Your task to perform on an android device: turn on priority inbox in the gmail app Image 0: 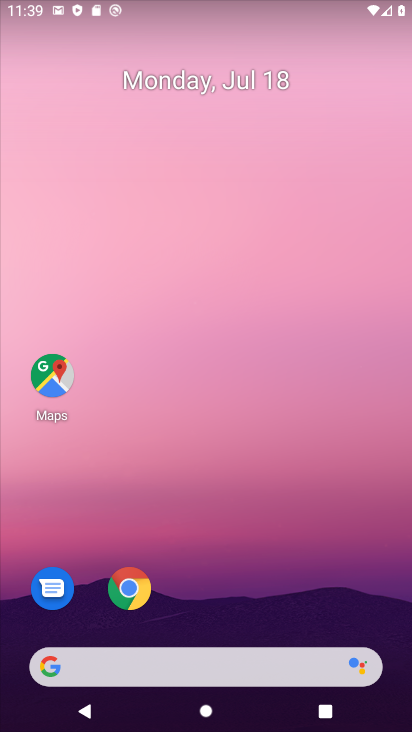
Step 0: drag from (365, 624) to (263, 98)
Your task to perform on an android device: turn on priority inbox in the gmail app Image 1: 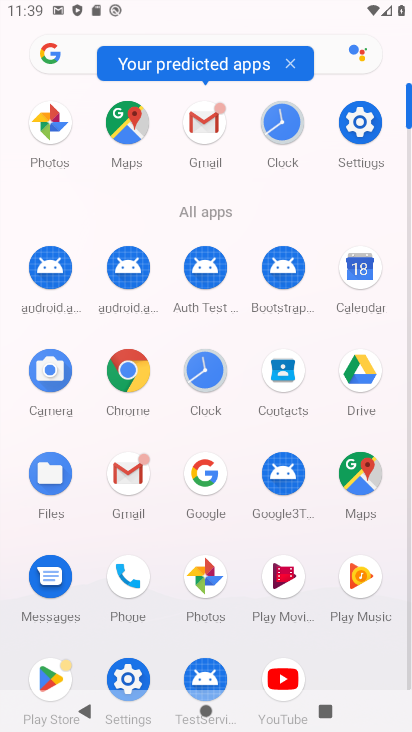
Step 1: click (139, 483)
Your task to perform on an android device: turn on priority inbox in the gmail app Image 2: 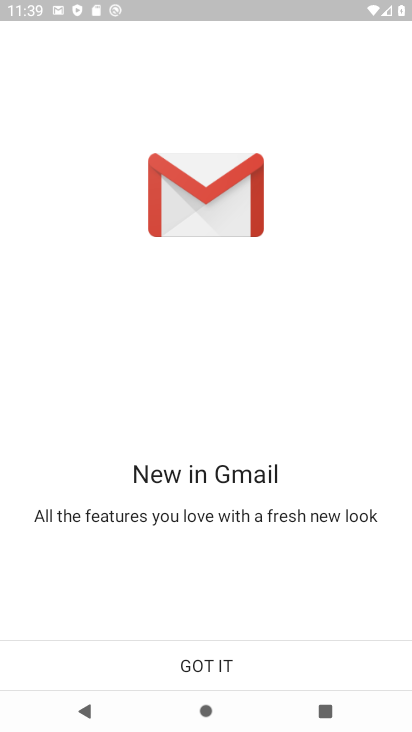
Step 2: click (234, 675)
Your task to perform on an android device: turn on priority inbox in the gmail app Image 3: 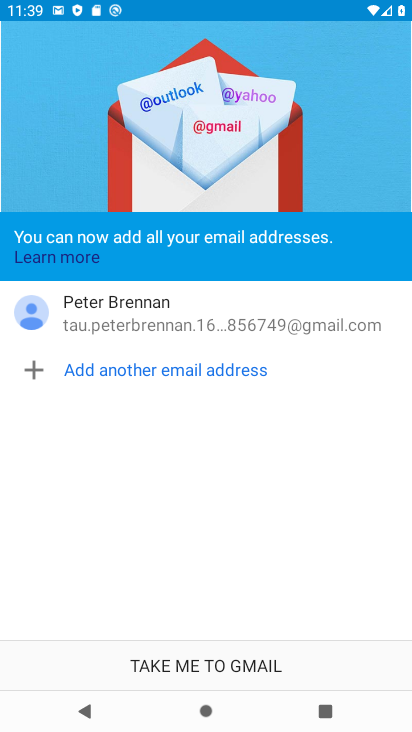
Step 3: click (234, 675)
Your task to perform on an android device: turn on priority inbox in the gmail app Image 4: 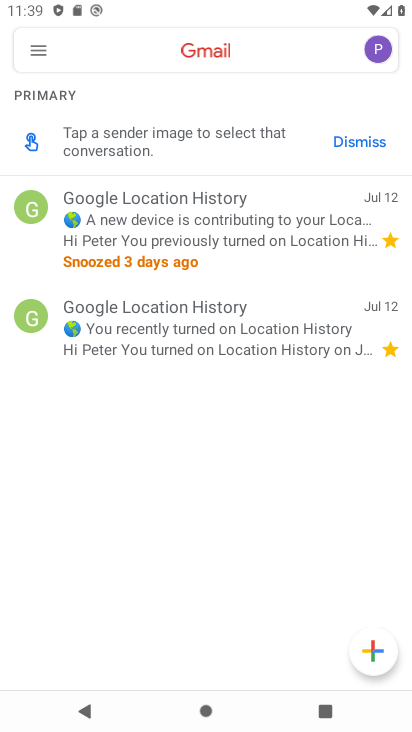
Step 4: click (39, 55)
Your task to perform on an android device: turn on priority inbox in the gmail app Image 5: 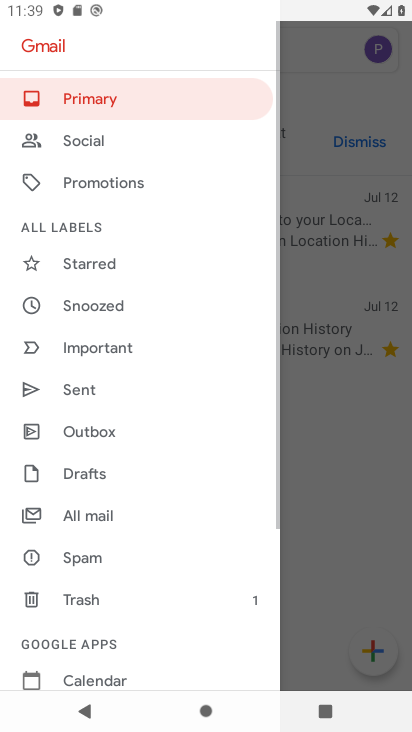
Step 5: drag from (67, 662) to (114, 194)
Your task to perform on an android device: turn on priority inbox in the gmail app Image 6: 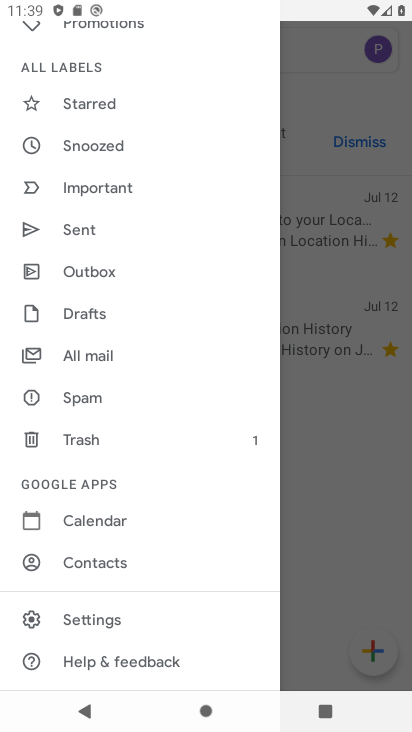
Step 6: click (91, 621)
Your task to perform on an android device: turn on priority inbox in the gmail app Image 7: 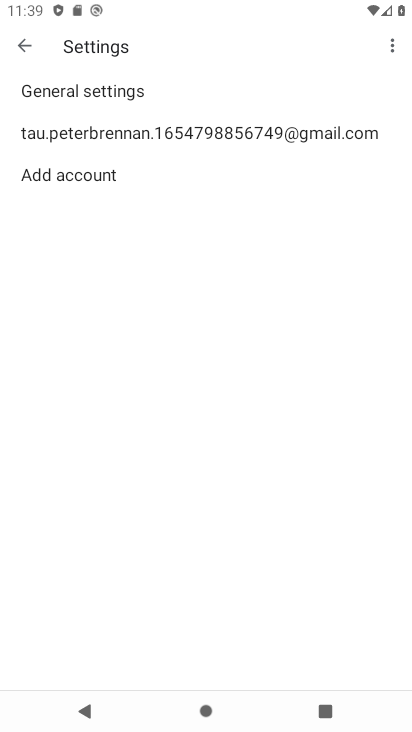
Step 7: click (266, 136)
Your task to perform on an android device: turn on priority inbox in the gmail app Image 8: 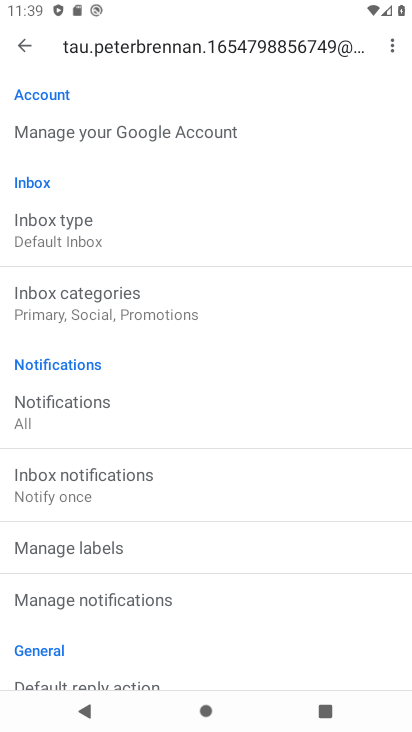
Step 8: click (50, 249)
Your task to perform on an android device: turn on priority inbox in the gmail app Image 9: 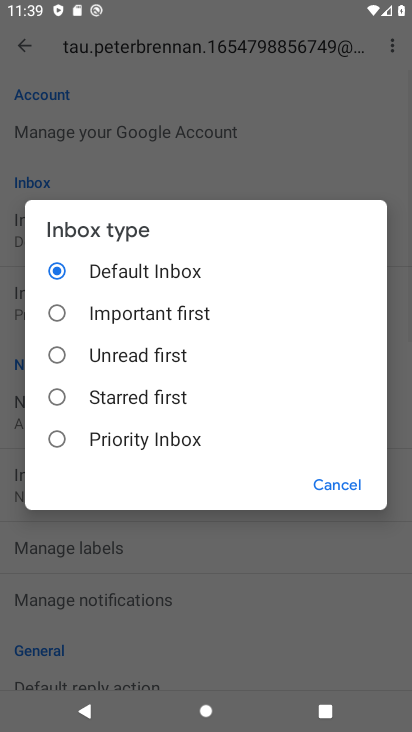
Step 9: click (120, 431)
Your task to perform on an android device: turn on priority inbox in the gmail app Image 10: 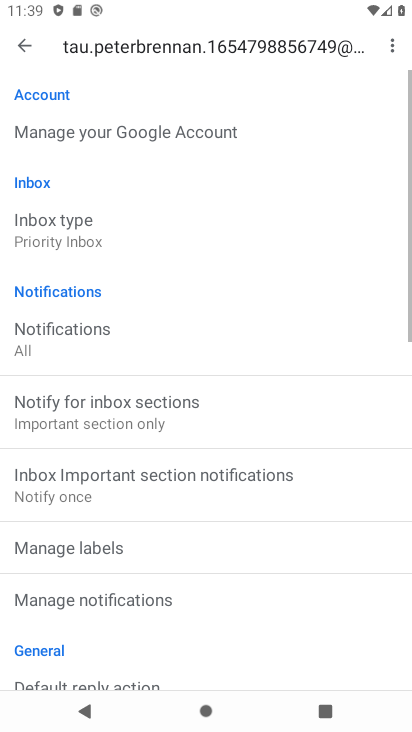
Step 10: task complete